Your task to perform on an android device: turn on improve location accuracy Image 0: 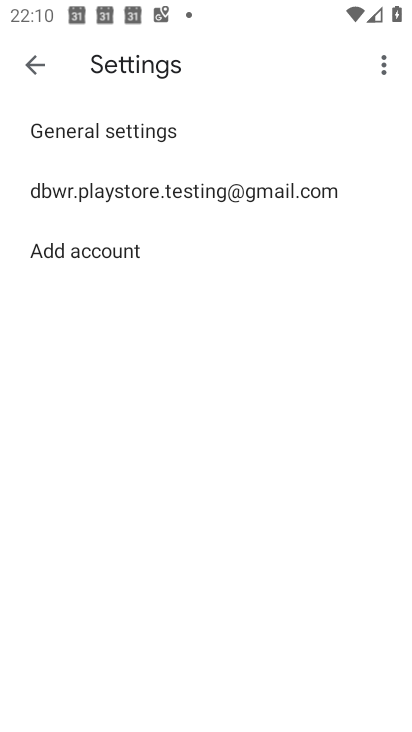
Step 0: press home button
Your task to perform on an android device: turn on improve location accuracy Image 1: 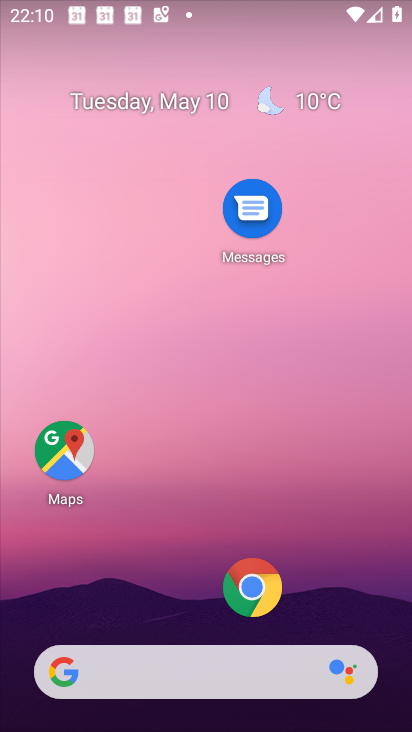
Step 1: drag from (166, 566) to (266, 15)
Your task to perform on an android device: turn on improve location accuracy Image 2: 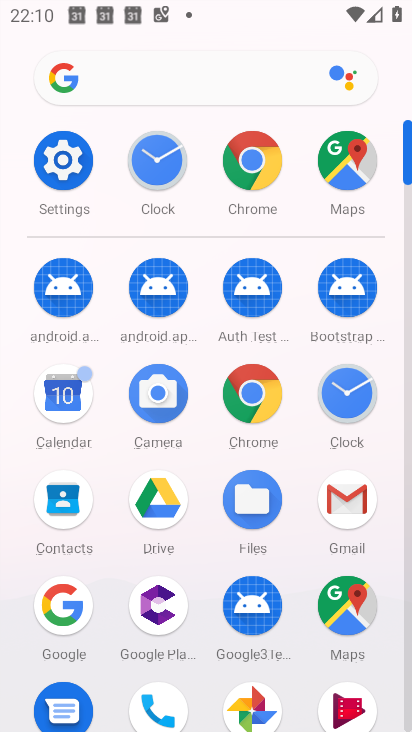
Step 2: click (62, 175)
Your task to perform on an android device: turn on improve location accuracy Image 3: 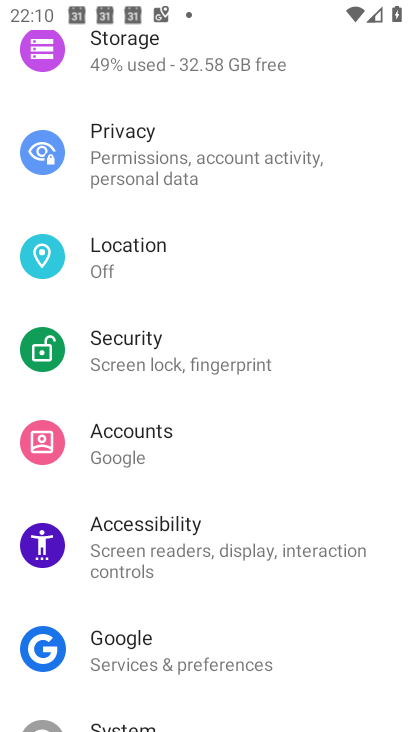
Step 3: click (133, 284)
Your task to perform on an android device: turn on improve location accuracy Image 4: 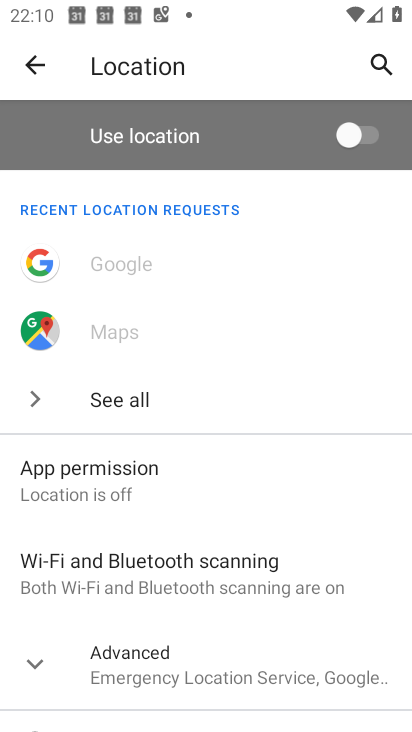
Step 4: drag from (189, 601) to (193, 337)
Your task to perform on an android device: turn on improve location accuracy Image 5: 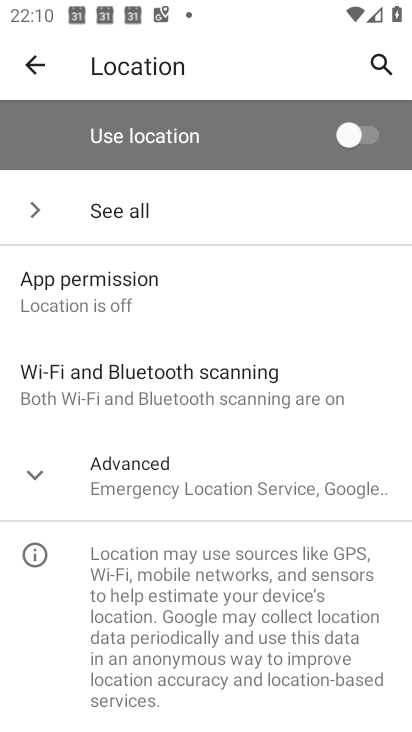
Step 5: click (139, 471)
Your task to perform on an android device: turn on improve location accuracy Image 6: 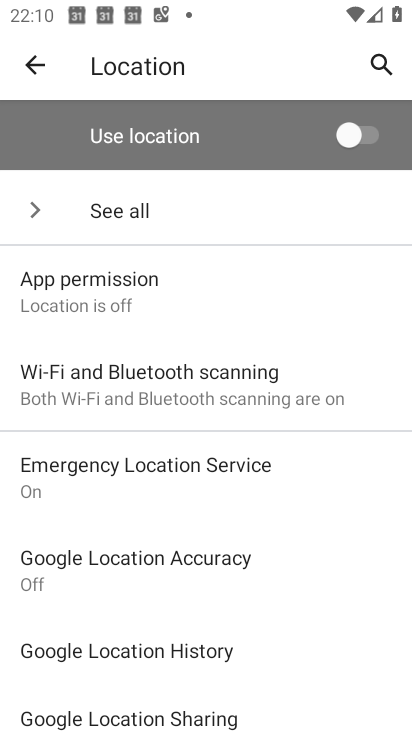
Step 6: click (141, 577)
Your task to perform on an android device: turn on improve location accuracy Image 7: 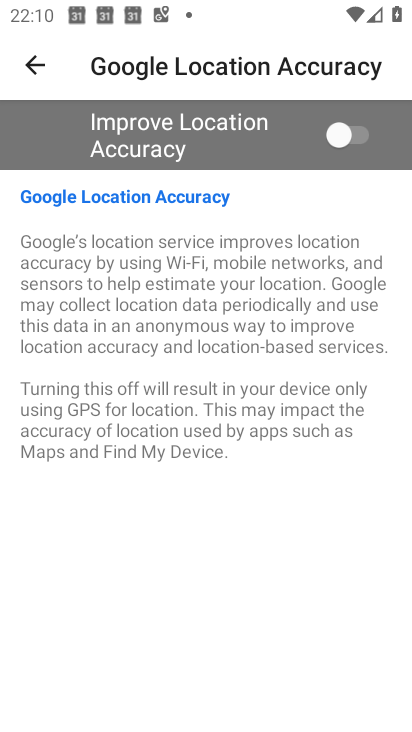
Step 7: click (359, 136)
Your task to perform on an android device: turn on improve location accuracy Image 8: 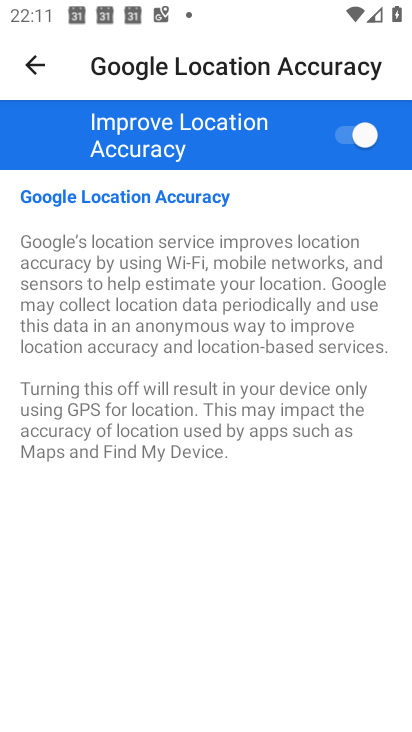
Step 8: task complete